Your task to perform on an android device: Go to location settings Image 0: 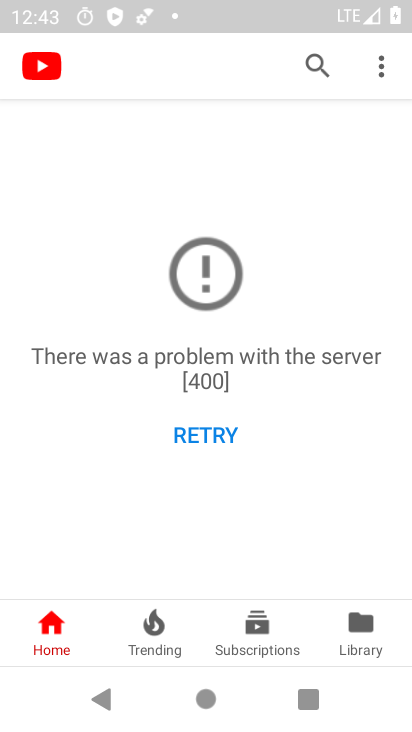
Step 0: press home button
Your task to perform on an android device: Go to location settings Image 1: 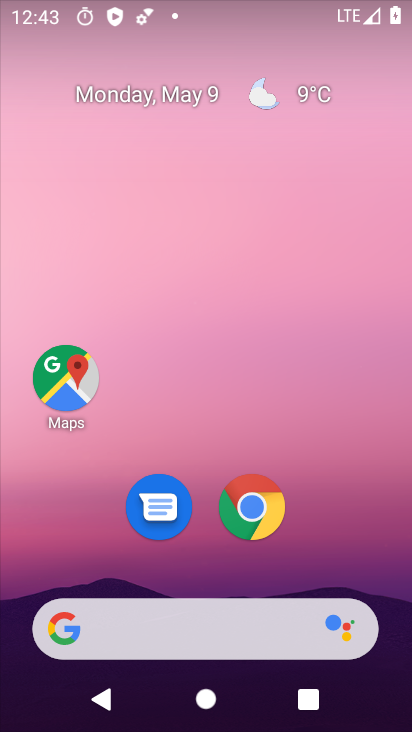
Step 1: drag from (223, 724) to (191, 30)
Your task to perform on an android device: Go to location settings Image 2: 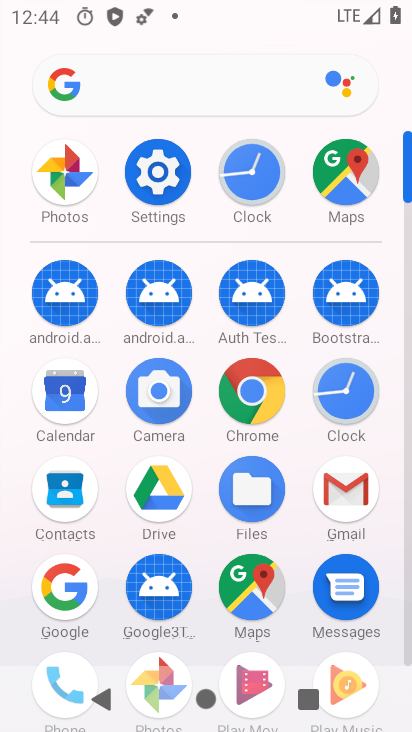
Step 2: click (163, 170)
Your task to perform on an android device: Go to location settings Image 3: 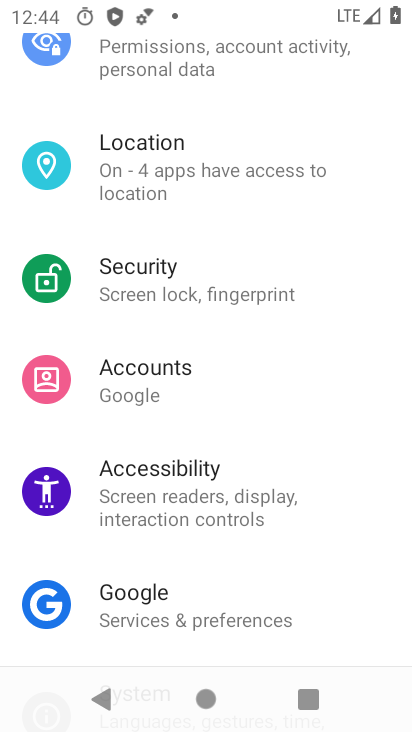
Step 3: drag from (211, 609) to (172, 601)
Your task to perform on an android device: Go to location settings Image 4: 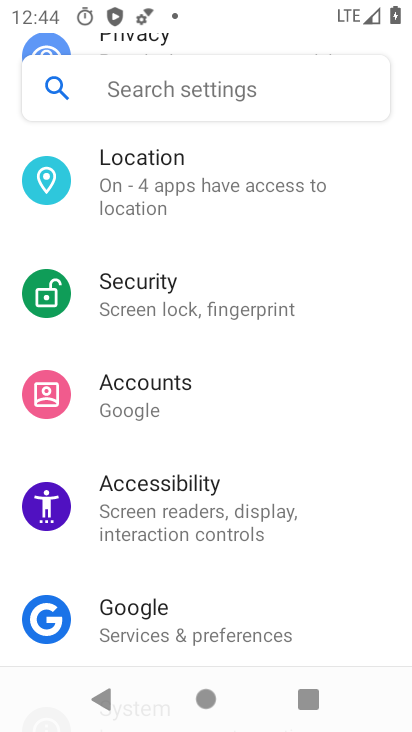
Step 4: click (116, 178)
Your task to perform on an android device: Go to location settings Image 5: 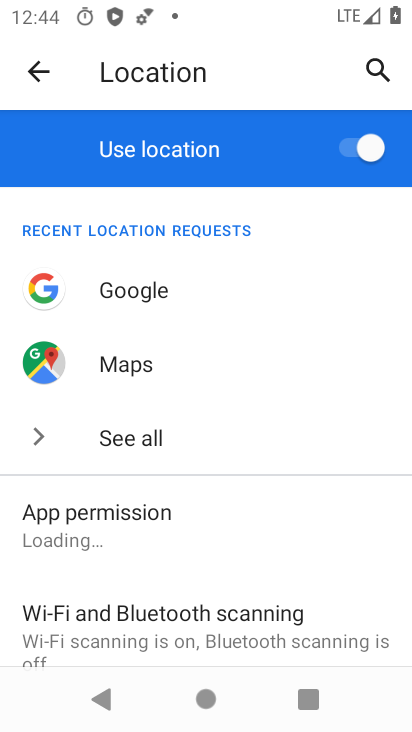
Step 5: task complete